Your task to perform on an android device: uninstall "Firefox Browser" Image 0: 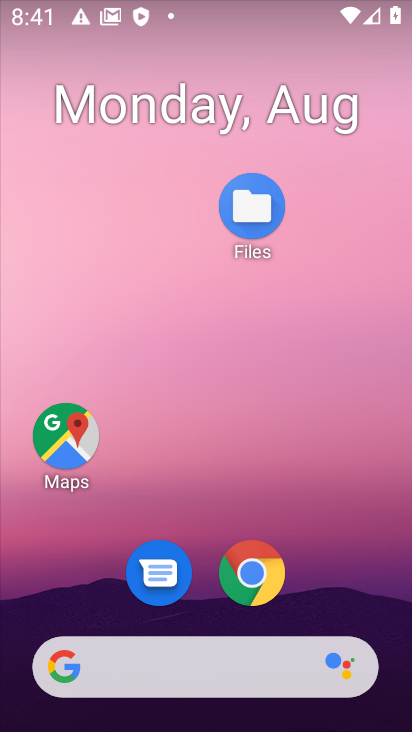
Step 0: click (268, 15)
Your task to perform on an android device: uninstall "Firefox Browser" Image 1: 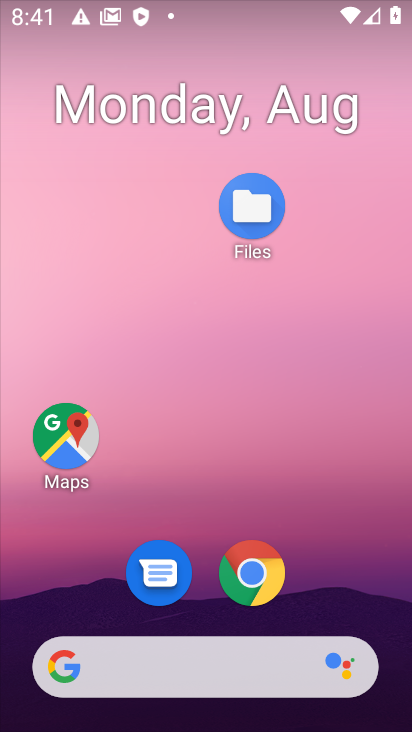
Step 1: drag from (183, 718) to (334, 146)
Your task to perform on an android device: uninstall "Firefox Browser" Image 2: 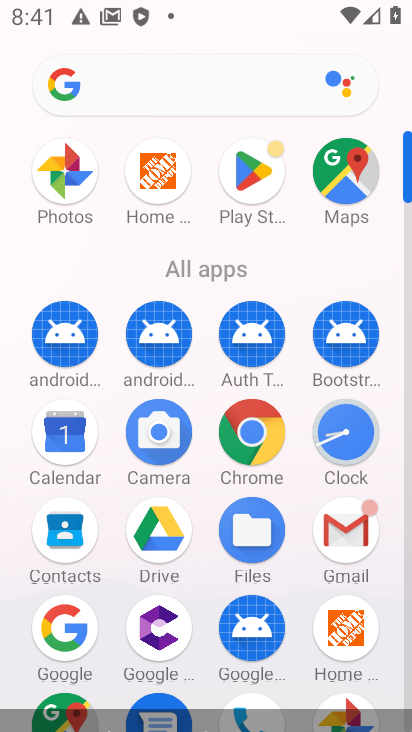
Step 2: click (262, 197)
Your task to perform on an android device: uninstall "Firefox Browser" Image 3: 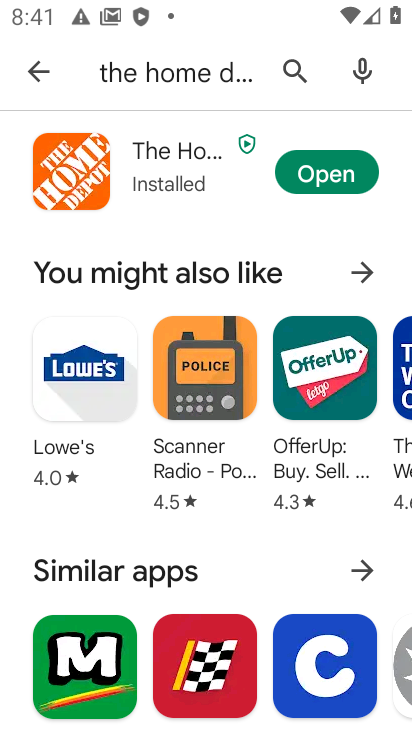
Step 3: click (287, 59)
Your task to perform on an android device: uninstall "Firefox Browser" Image 4: 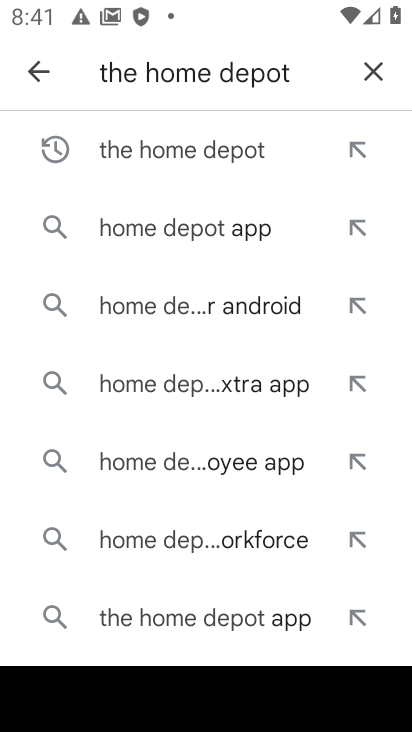
Step 4: click (366, 74)
Your task to perform on an android device: uninstall "Firefox Browser" Image 5: 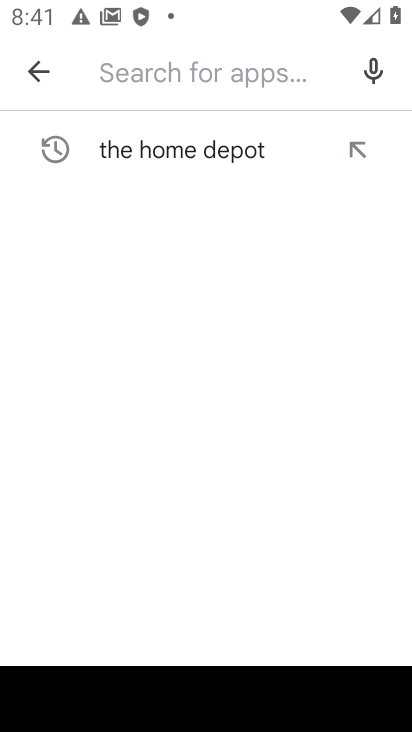
Step 5: type "firefox browser"
Your task to perform on an android device: uninstall "Firefox Browser" Image 6: 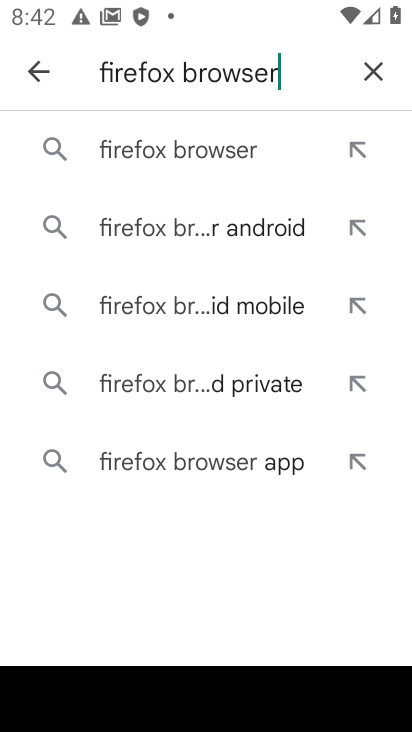
Step 6: click (202, 155)
Your task to perform on an android device: uninstall "Firefox Browser" Image 7: 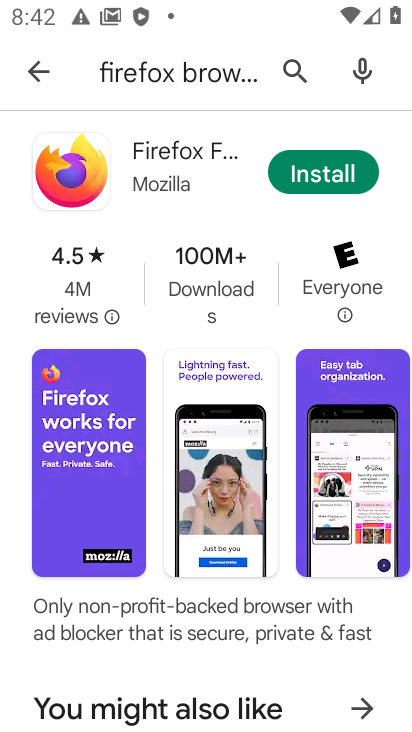
Step 7: task complete